Your task to perform on an android device: Add logitech g933 to the cart on ebay, then select checkout. Image 0: 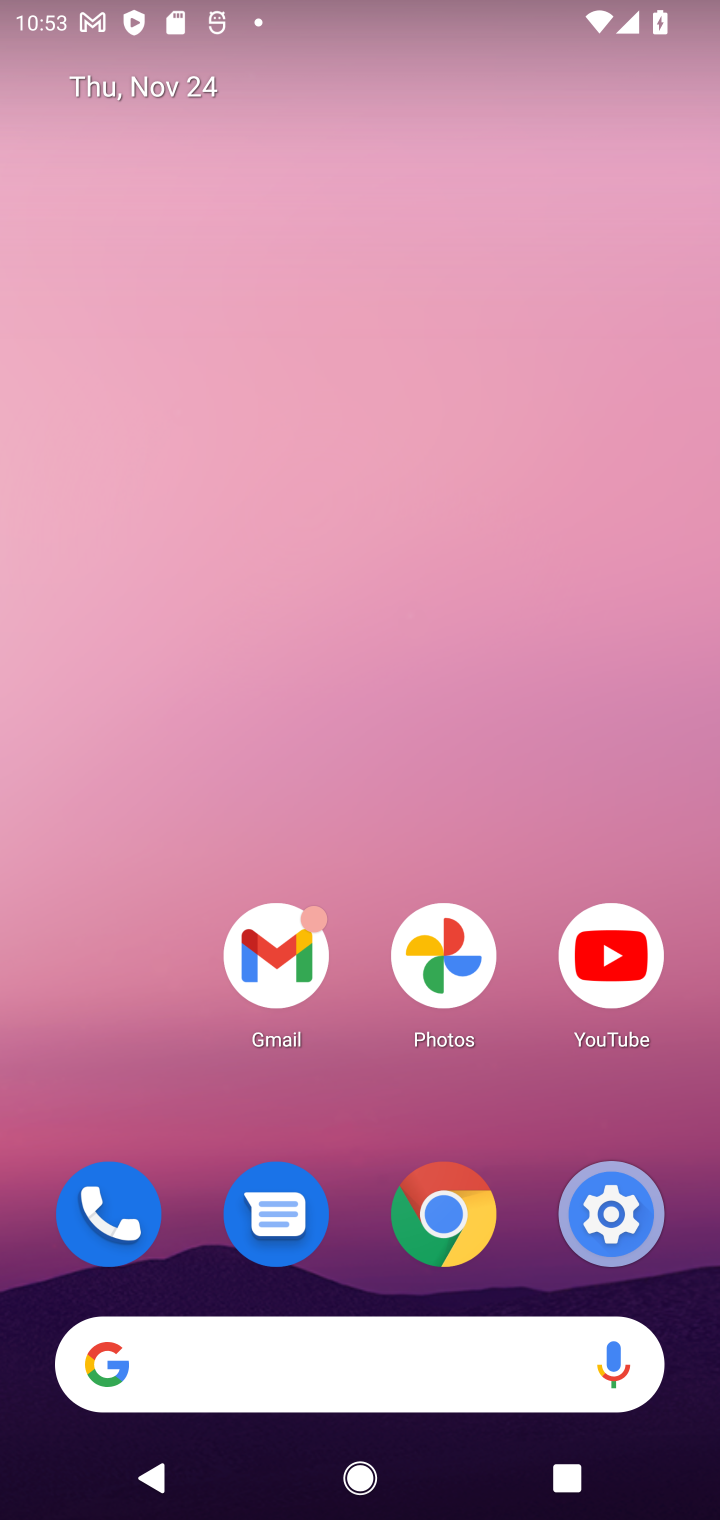
Step 0: click (409, 1369)
Your task to perform on an android device: Add logitech g933 to the cart on ebay, then select checkout. Image 1: 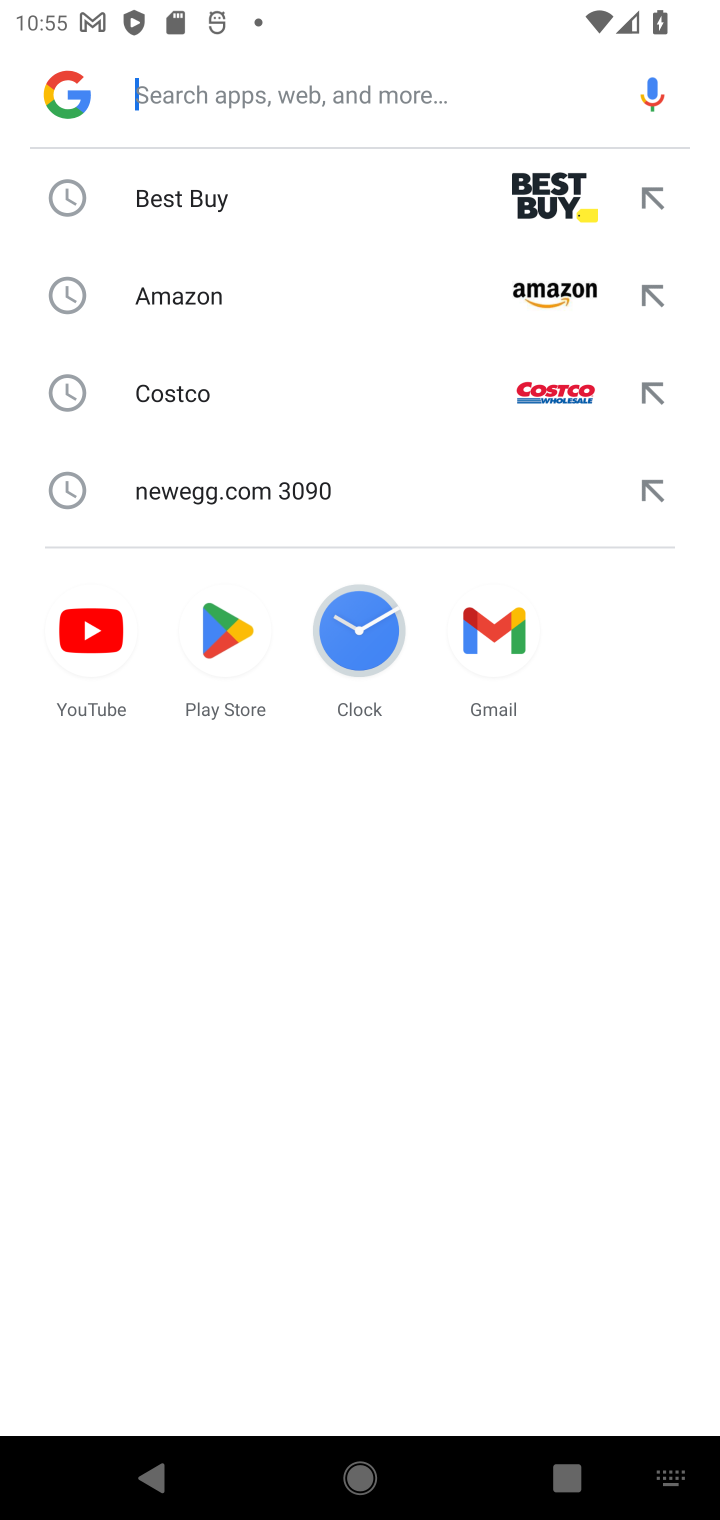
Step 1: click (231, 182)
Your task to perform on an android device: Add logitech g933 to the cart on ebay, then select checkout. Image 2: 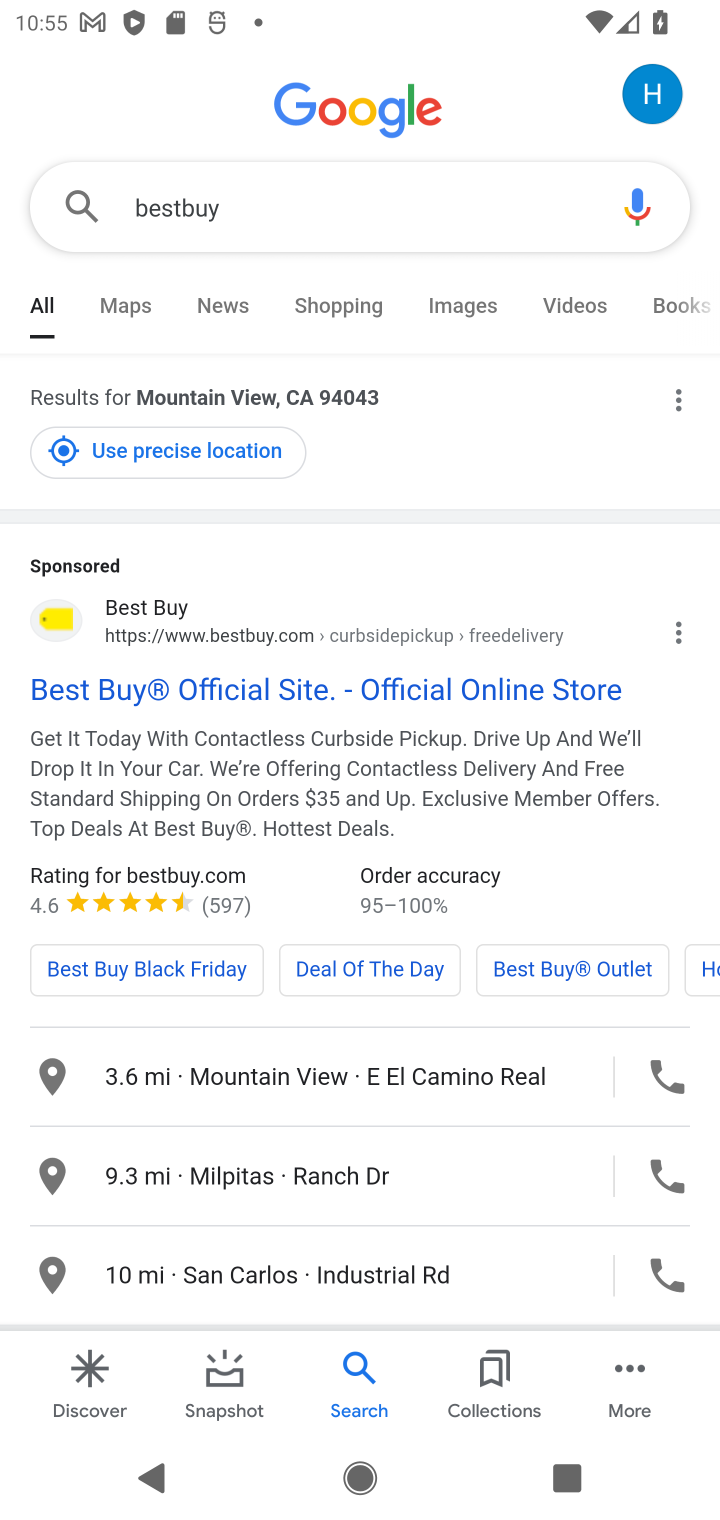
Step 2: click (63, 673)
Your task to perform on an android device: Add logitech g933 to the cart on ebay, then select checkout. Image 3: 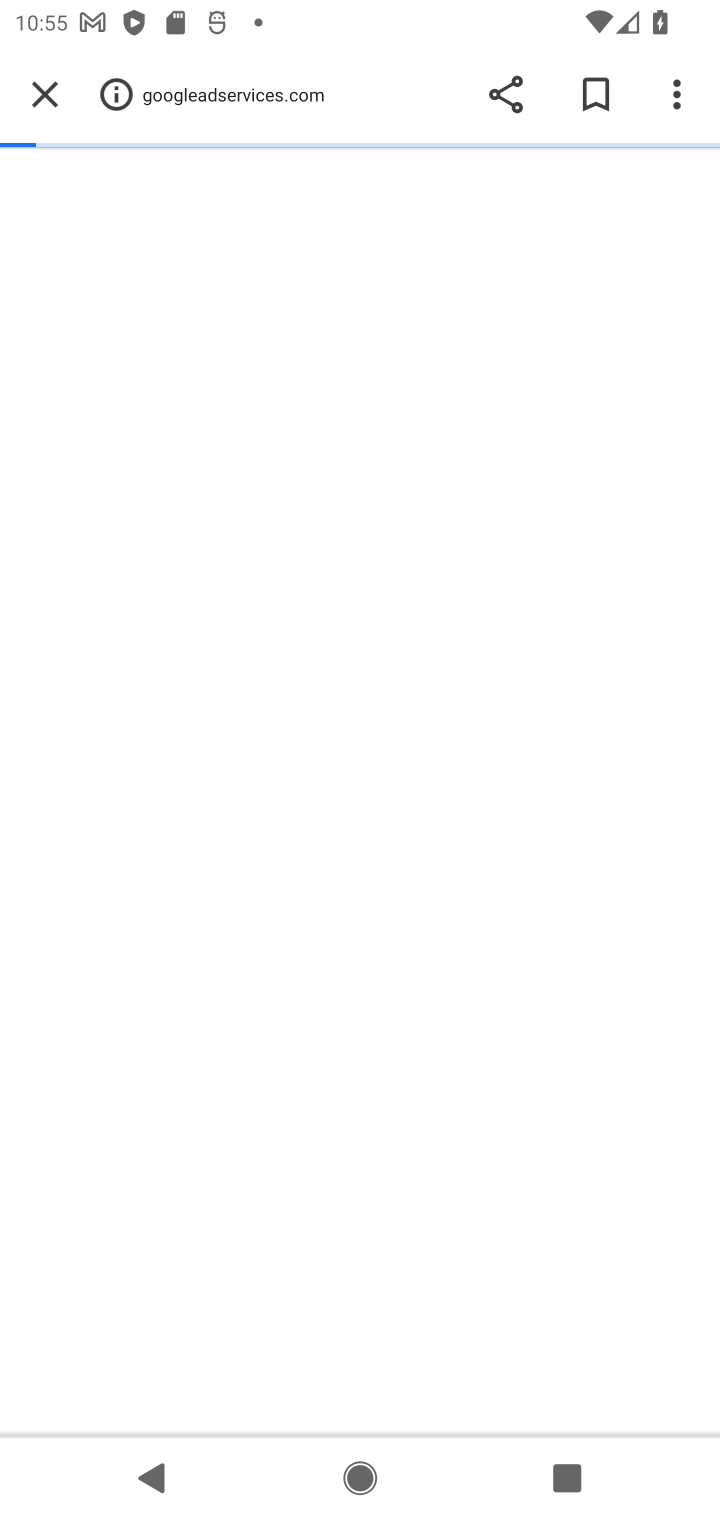
Step 3: task complete